Your task to perform on an android device: check out phone information Image 0: 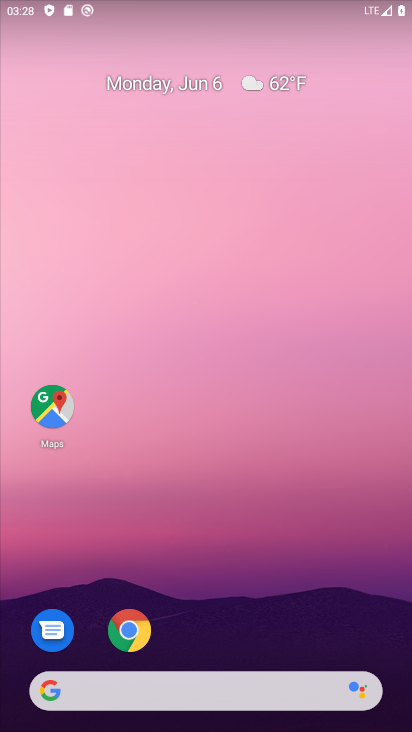
Step 0: drag from (285, 586) to (258, 0)
Your task to perform on an android device: check out phone information Image 1: 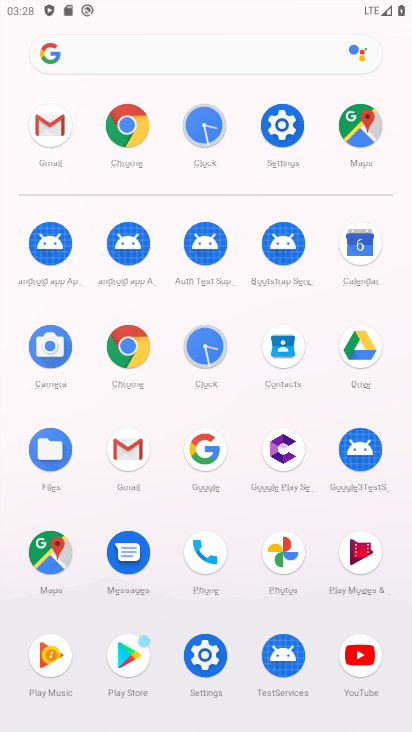
Step 1: click (199, 544)
Your task to perform on an android device: check out phone information Image 2: 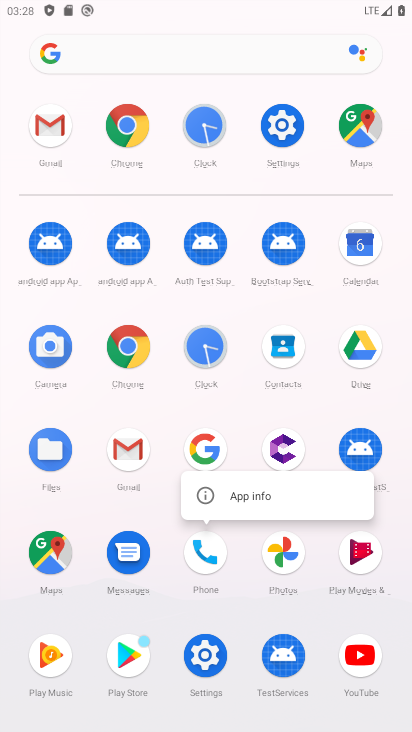
Step 2: click (228, 489)
Your task to perform on an android device: check out phone information Image 3: 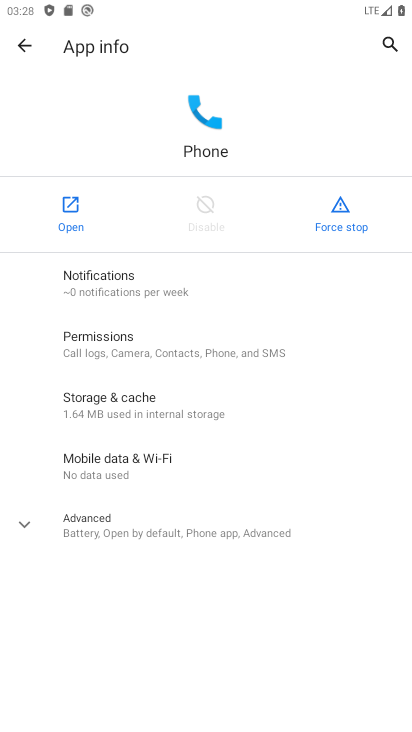
Step 3: task complete